Your task to perform on an android device: What is the news today? Image 0: 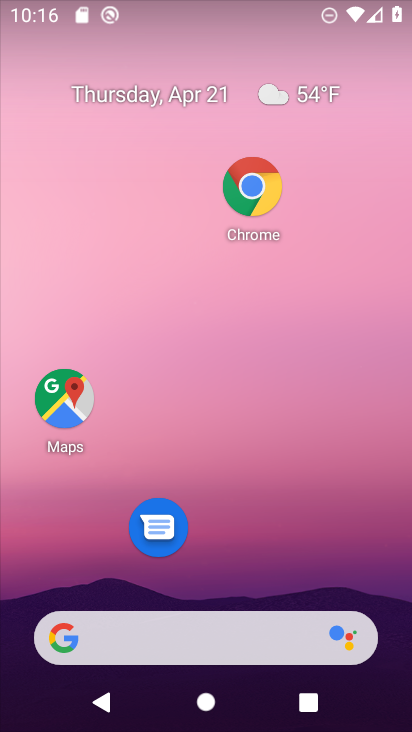
Step 0: drag from (3, 307) to (408, 296)
Your task to perform on an android device: What is the news today? Image 1: 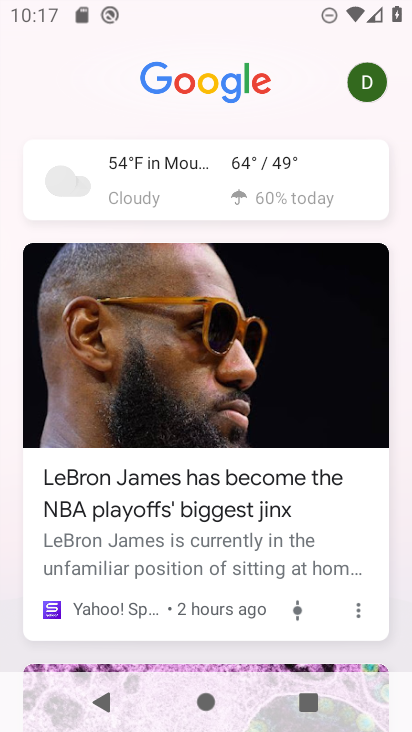
Step 1: task complete